Your task to perform on an android device: check battery use Image 0: 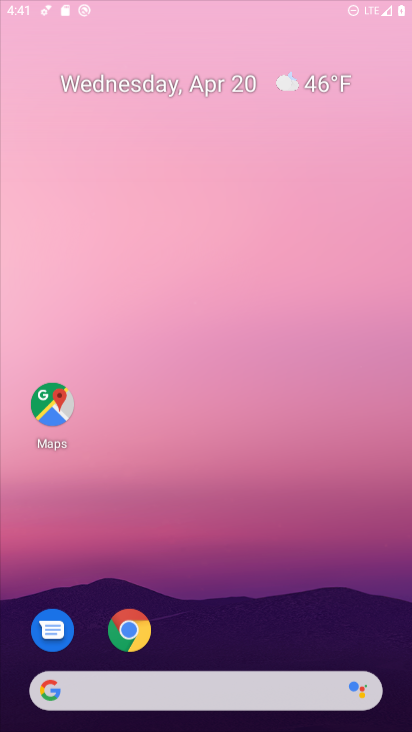
Step 0: drag from (326, 677) to (334, 11)
Your task to perform on an android device: check battery use Image 1: 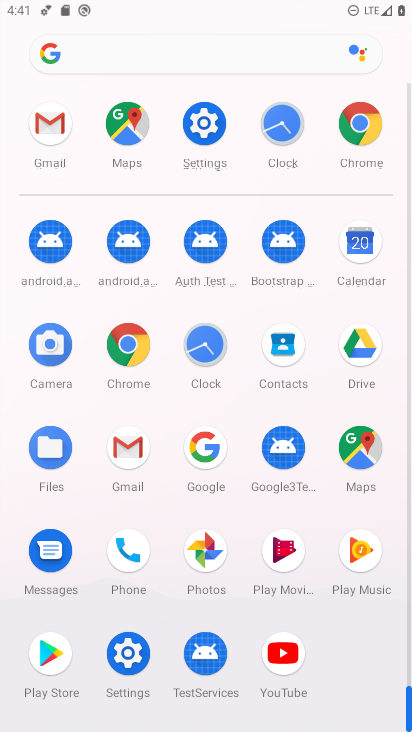
Step 1: click (110, 651)
Your task to perform on an android device: check battery use Image 2: 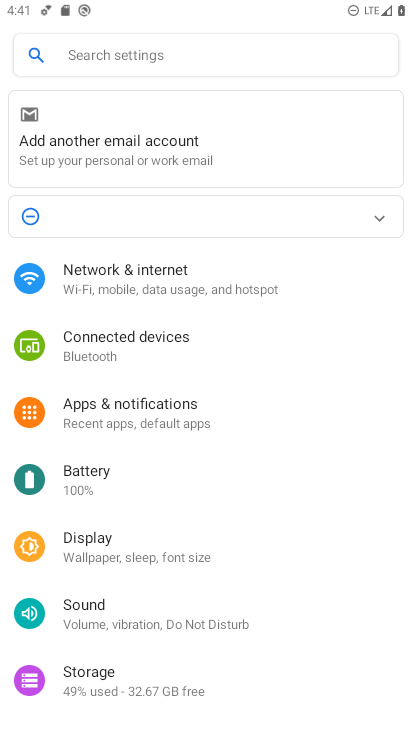
Step 2: click (116, 483)
Your task to perform on an android device: check battery use Image 3: 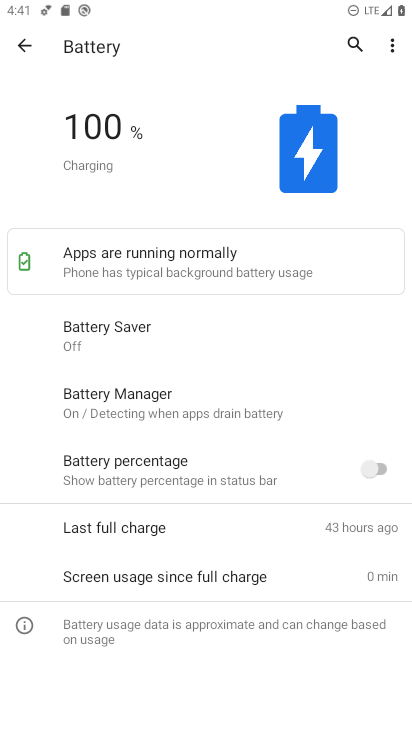
Step 3: task complete